Your task to perform on an android device: Open location settings Image 0: 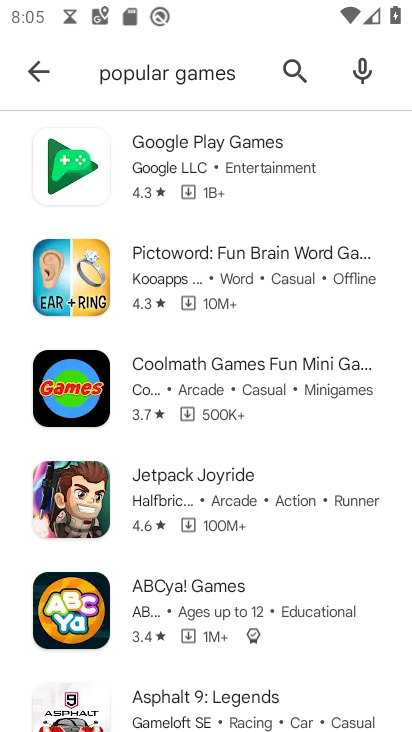
Step 0: press home button
Your task to perform on an android device: Open location settings Image 1: 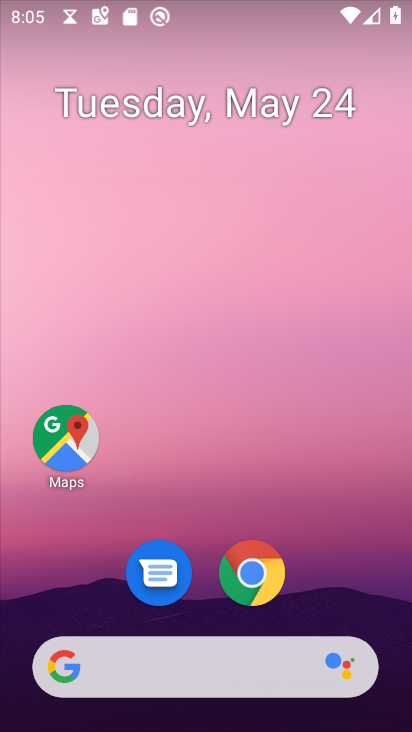
Step 1: drag from (255, 150) to (228, 21)
Your task to perform on an android device: Open location settings Image 2: 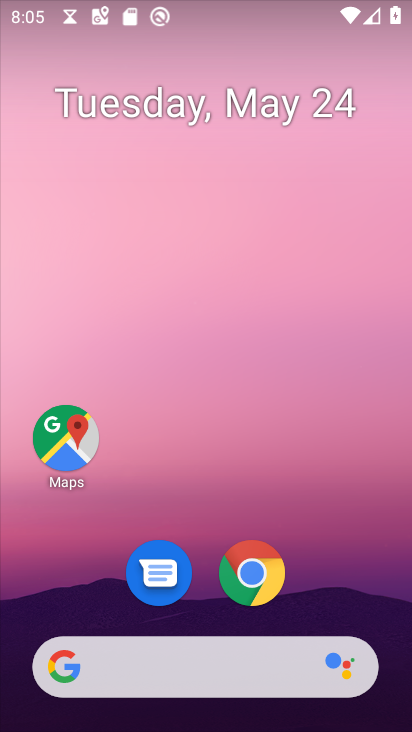
Step 2: drag from (342, 578) to (272, 84)
Your task to perform on an android device: Open location settings Image 3: 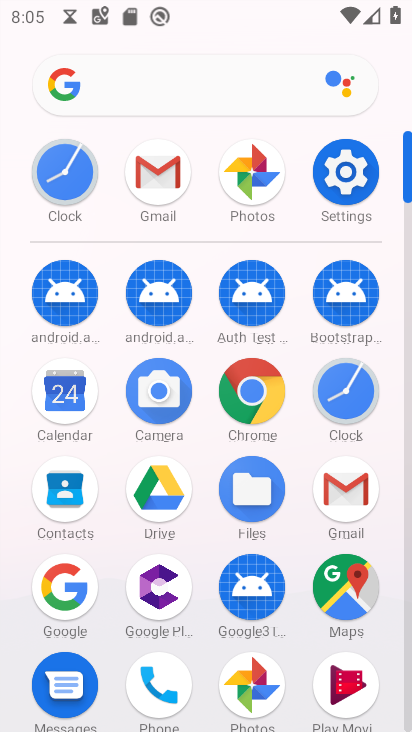
Step 3: click (321, 180)
Your task to perform on an android device: Open location settings Image 4: 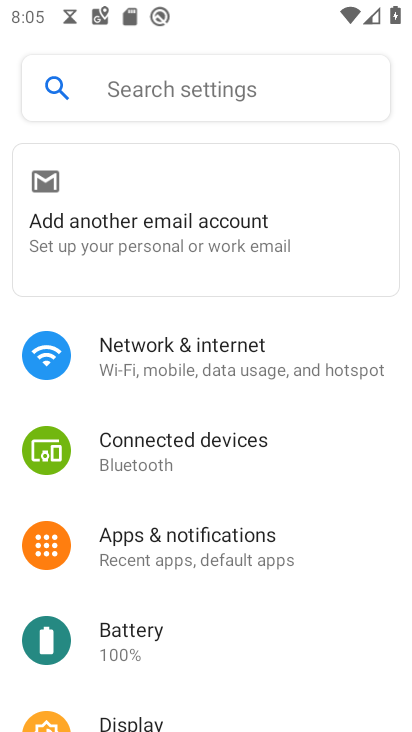
Step 4: drag from (194, 524) to (185, 83)
Your task to perform on an android device: Open location settings Image 5: 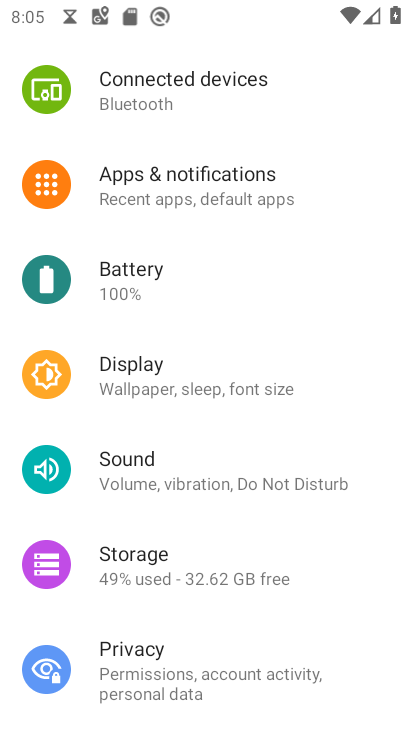
Step 5: drag from (225, 555) to (199, 220)
Your task to perform on an android device: Open location settings Image 6: 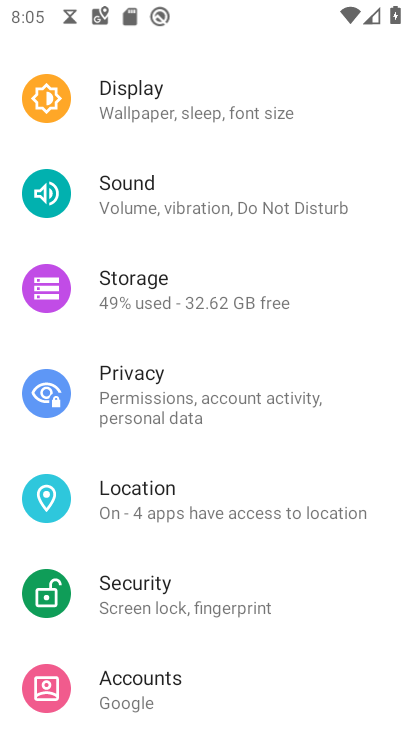
Step 6: click (134, 507)
Your task to perform on an android device: Open location settings Image 7: 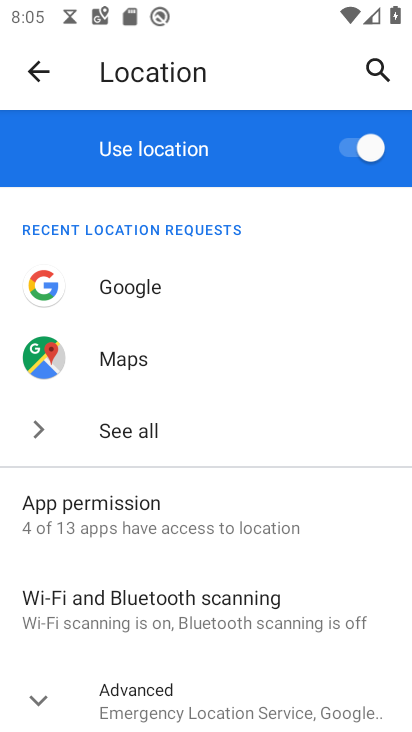
Step 7: task complete